Your task to perform on an android device: clear all cookies in the chrome app Image 0: 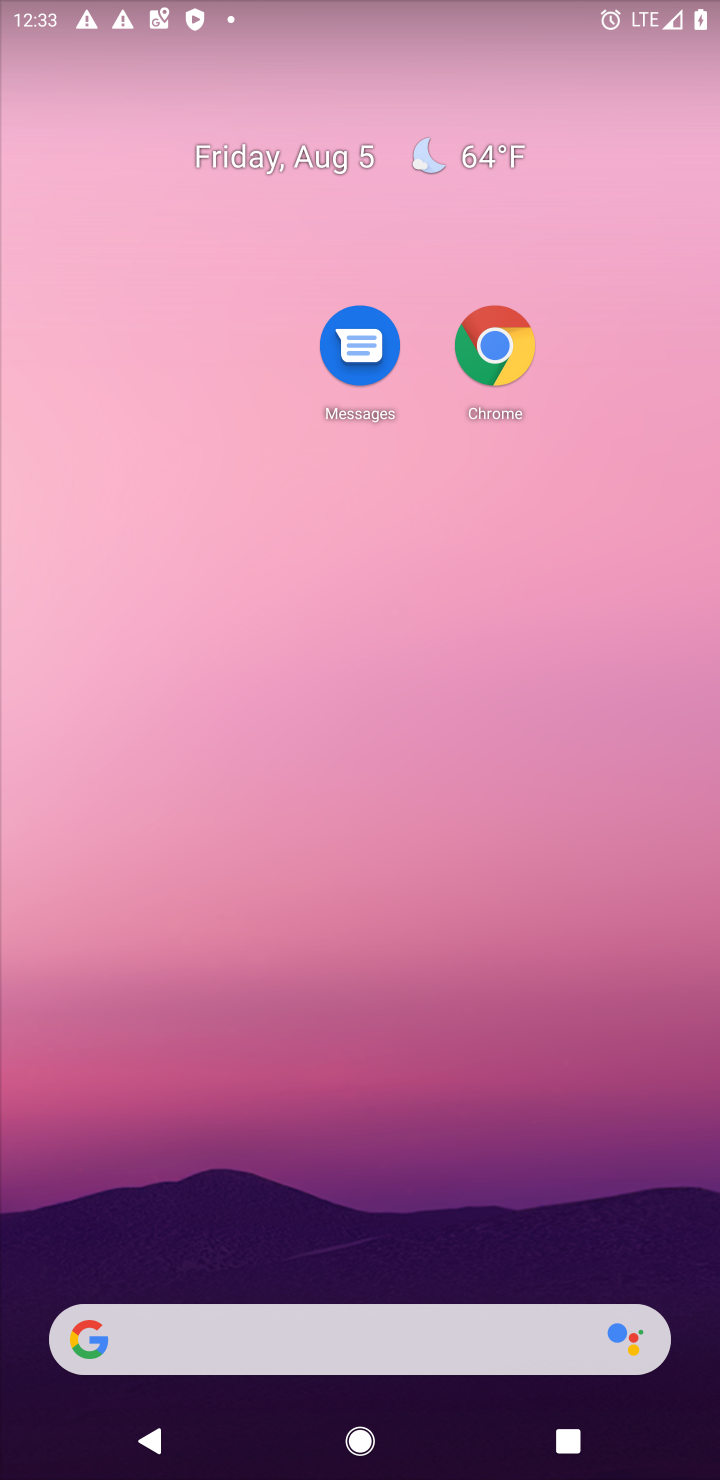
Step 0: drag from (292, 1044) to (507, 13)
Your task to perform on an android device: clear all cookies in the chrome app Image 1: 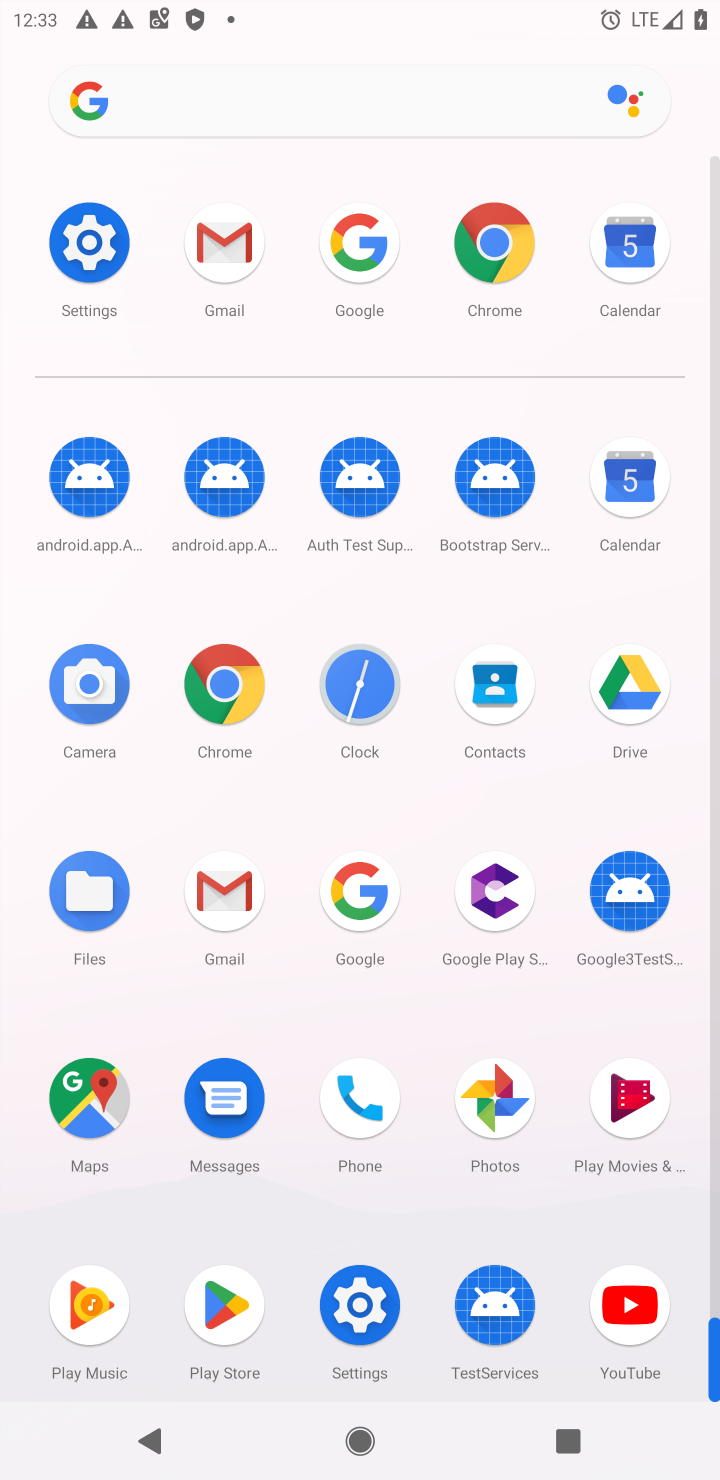
Step 1: click (474, 262)
Your task to perform on an android device: clear all cookies in the chrome app Image 2: 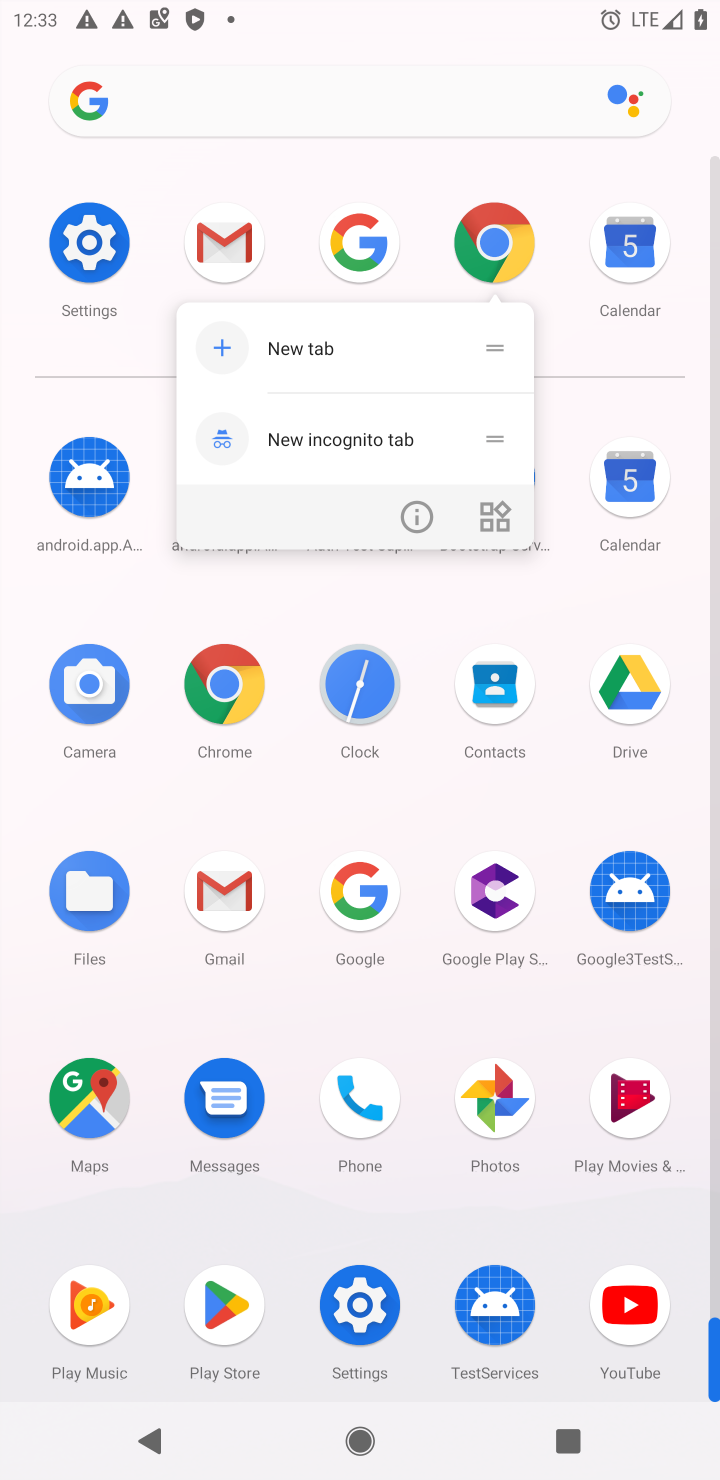
Step 2: click (474, 262)
Your task to perform on an android device: clear all cookies in the chrome app Image 3: 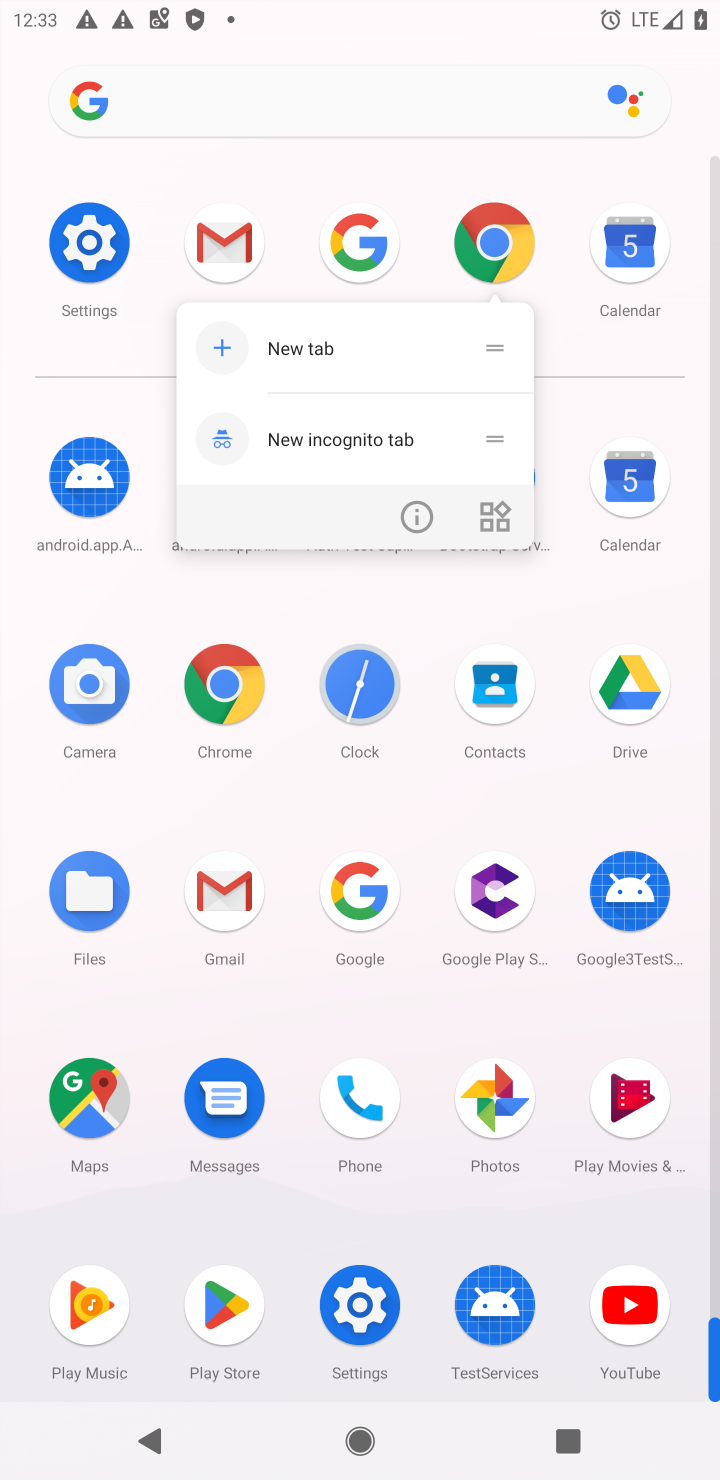
Step 3: click (483, 252)
Your task to perform on an android device: clear all cookies in the chrome app Image 4: 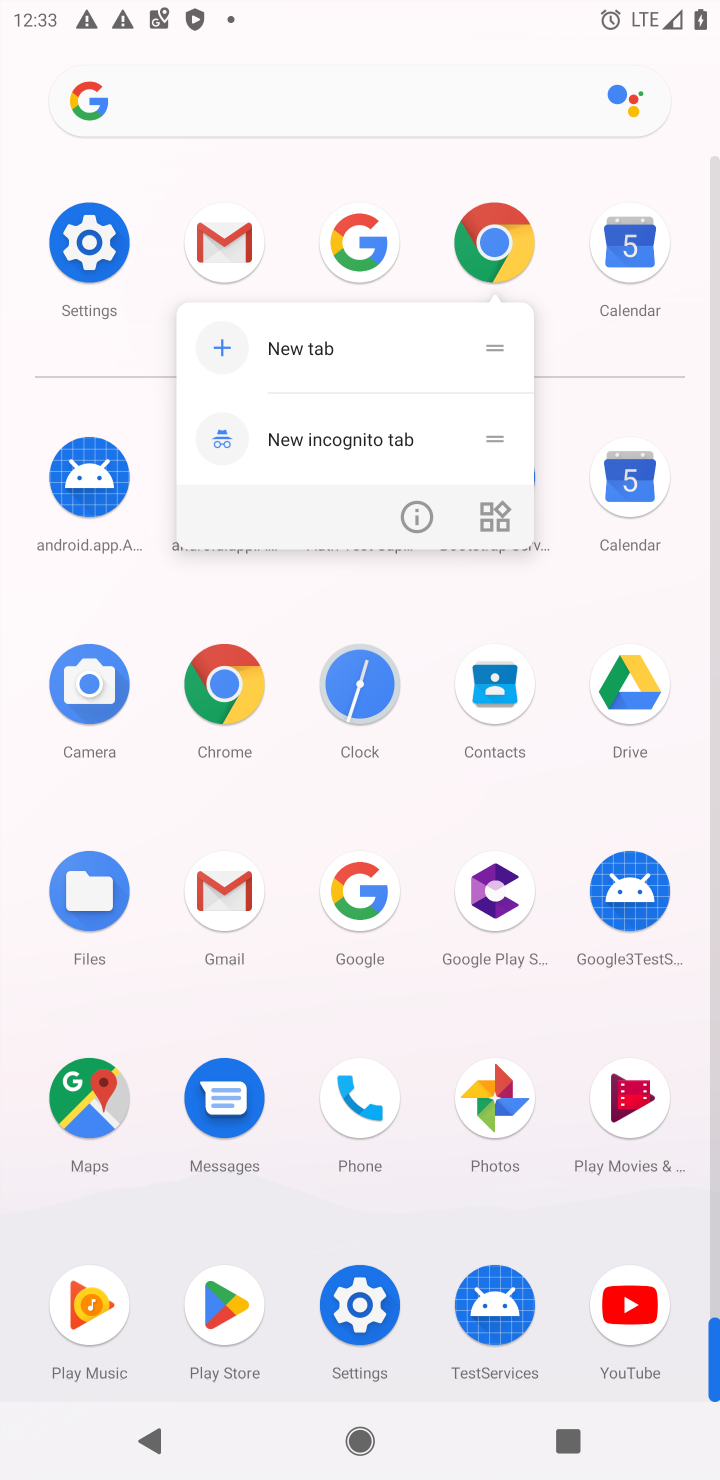
Step 4: click (466, 233)
Your task to perform on an android device: clear all cookies in the chrome app Image 5: 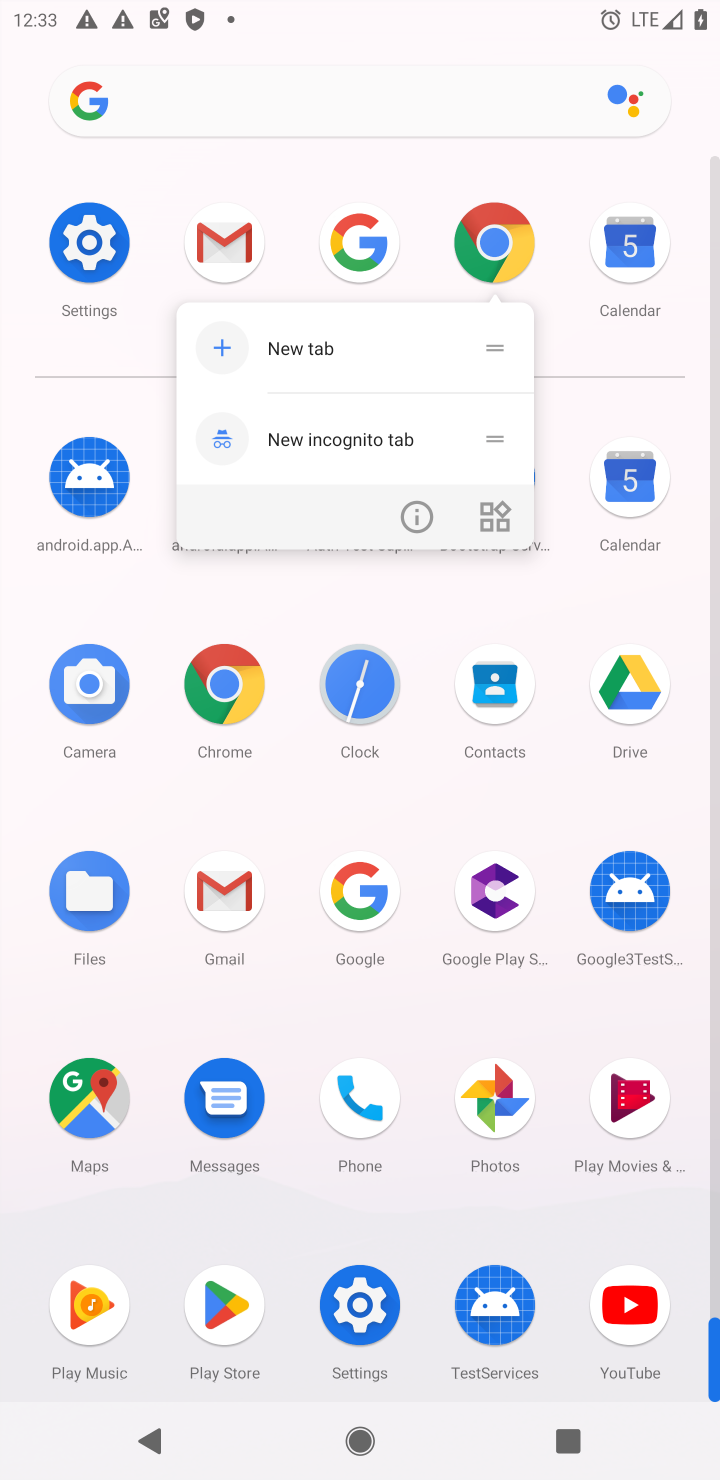
Step 5: click (492, 231)
Your task to perform on an android device: clear all cookies in the chrome app Image 6: 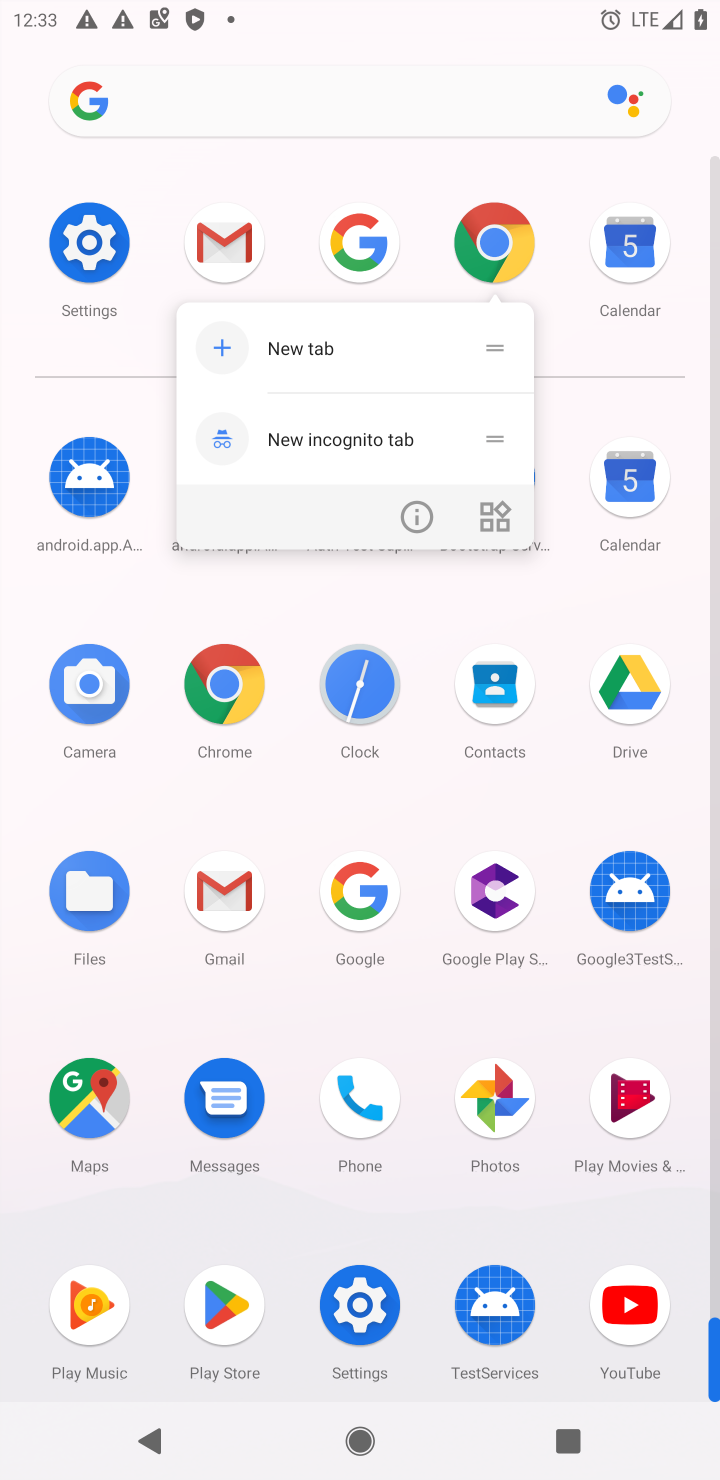
Step 6: click (492, 231)
Your task to perform on an android device: clear all cookies in the chrome app Image 7: 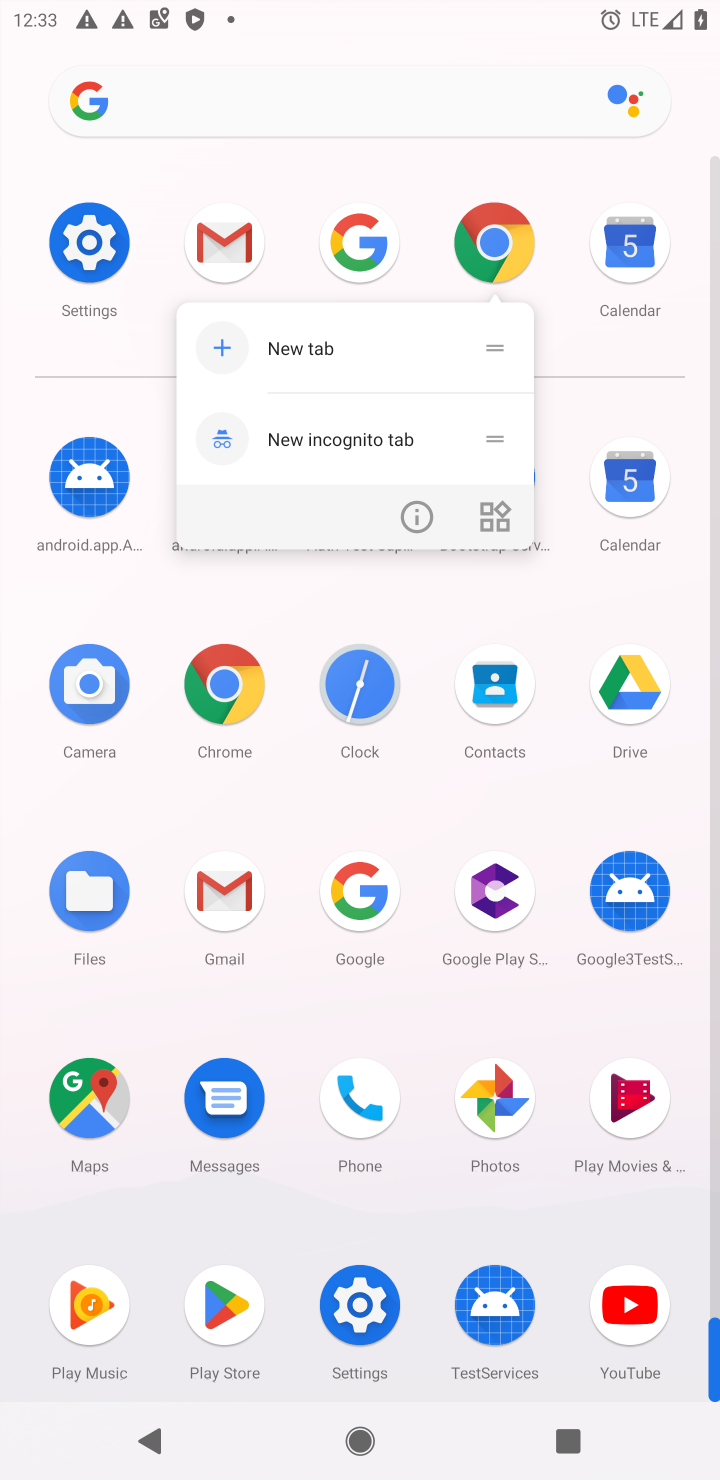
Step 7: click (505, 260)
Your task to perform on an android device: clear all cookies in the chrome app Image 8: 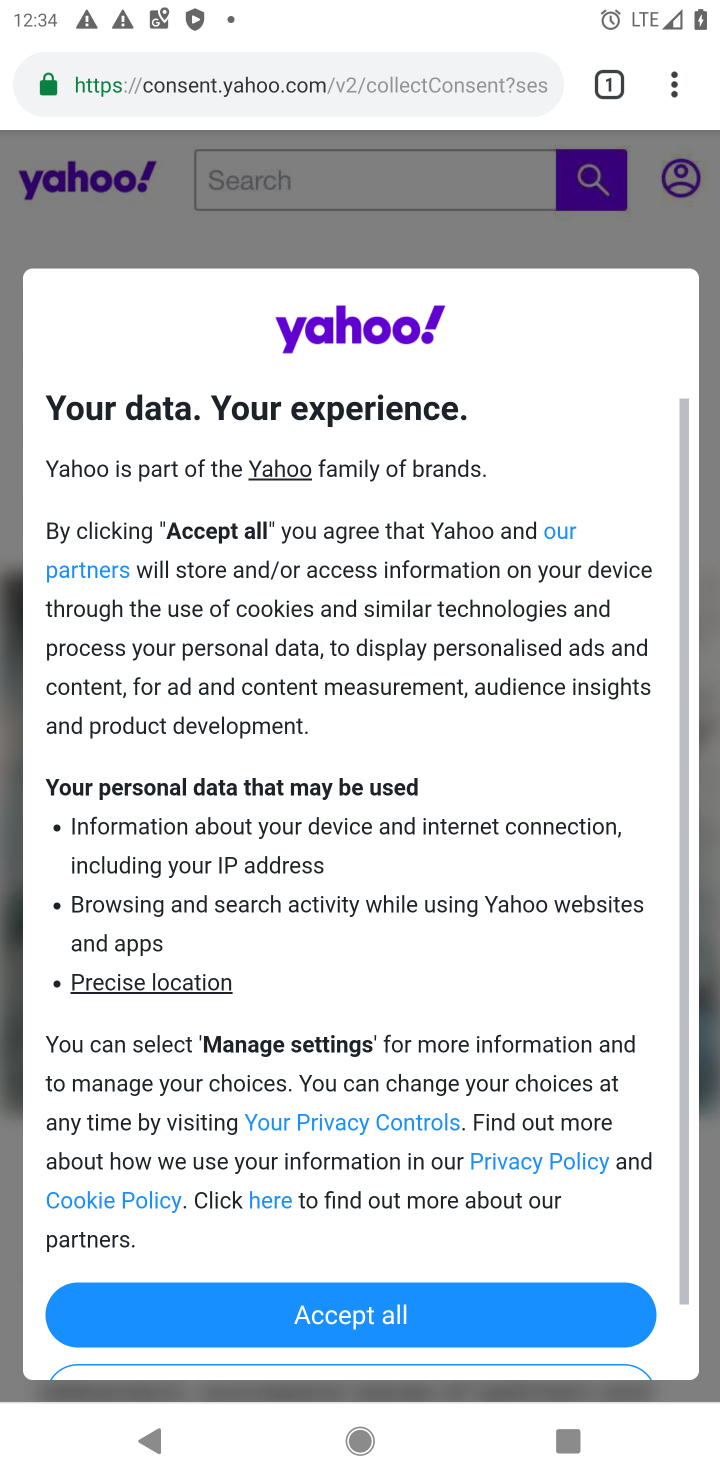
Step 8: drag from (673, 93) to (389, 473)
Your task to perform on an android device: clear all cookies in the chrome app Image 9: 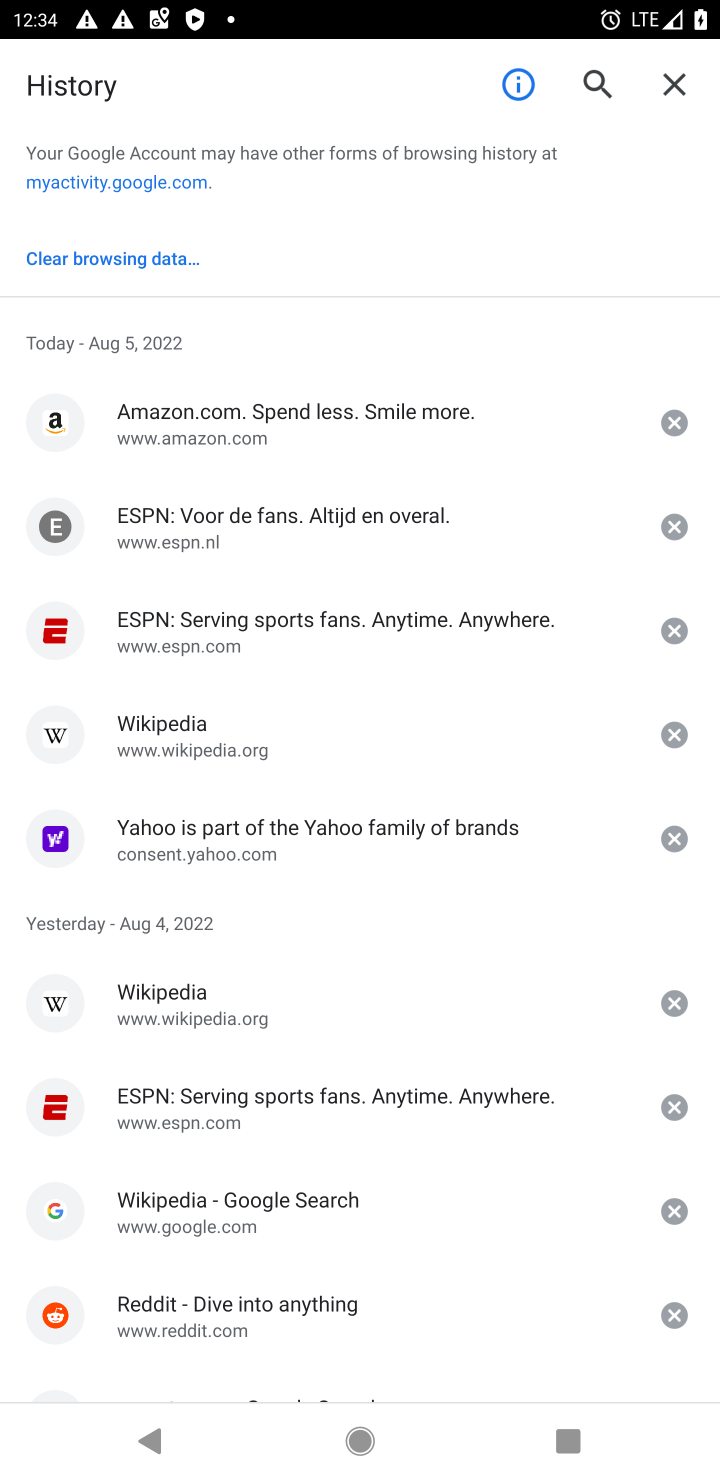
Step 9: click (102, 253)
Your task to perform on an android device: clear all cookies in the chrome app Image 10: 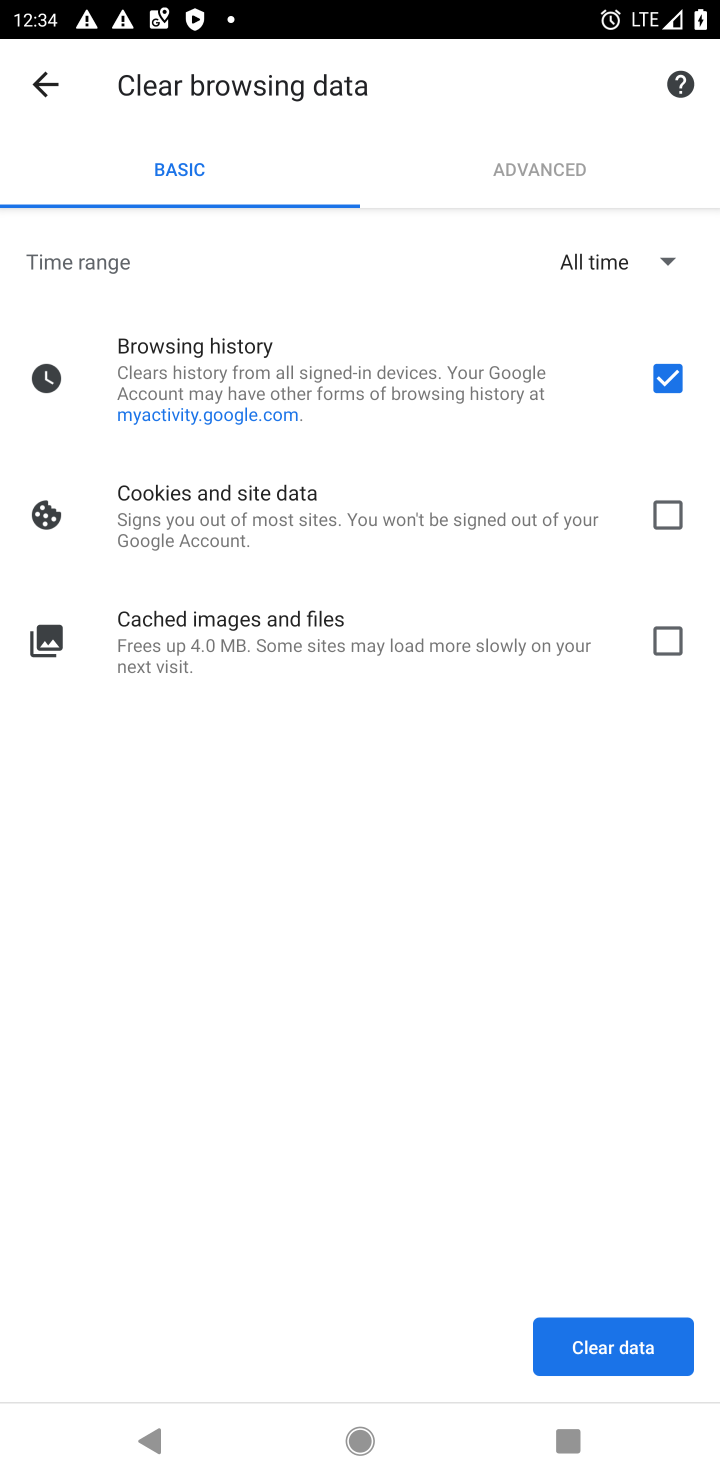
Step 10: click (657, 537)
Your task to perform on an android device: clear all cookies in the chrome app Image 11: 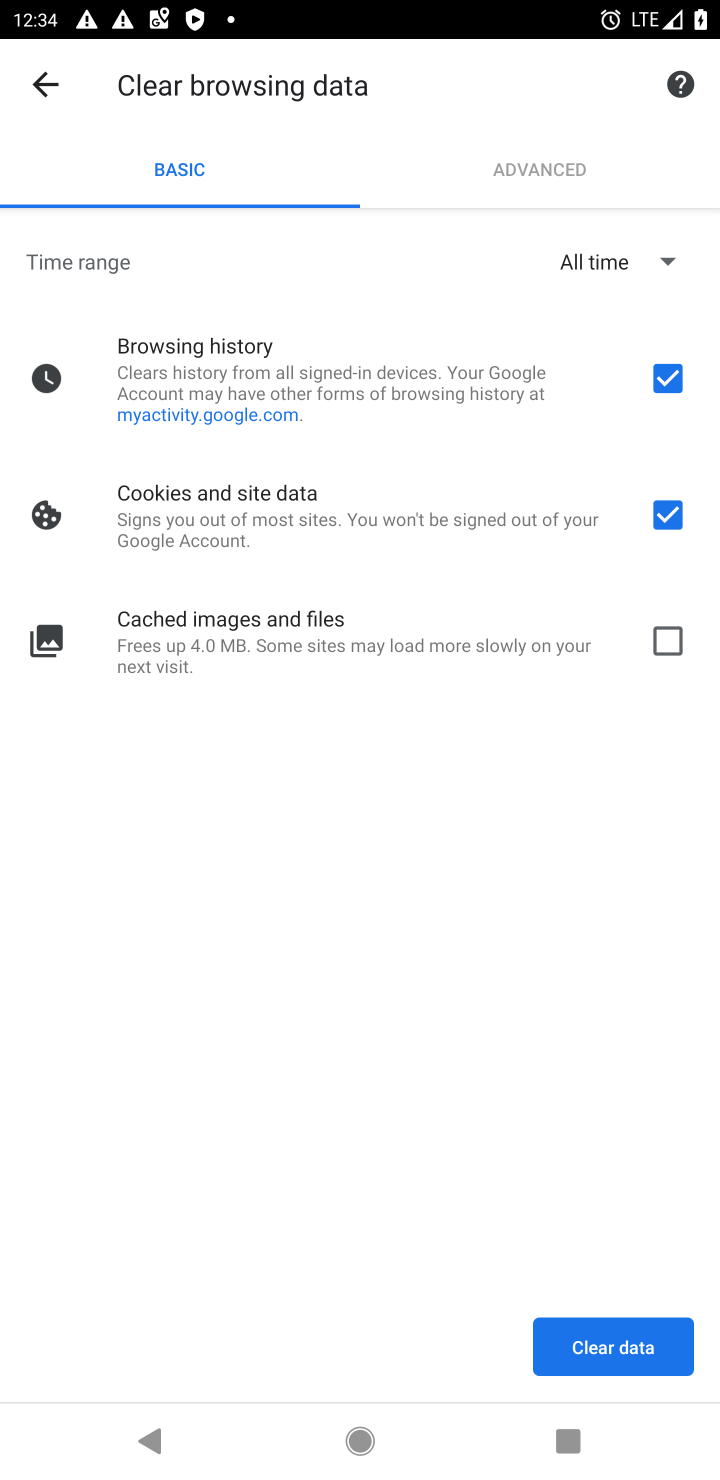
Step 11: click (660, 366)
Your task to perform on an android device: clear all cookies in the chrome app Image 12: 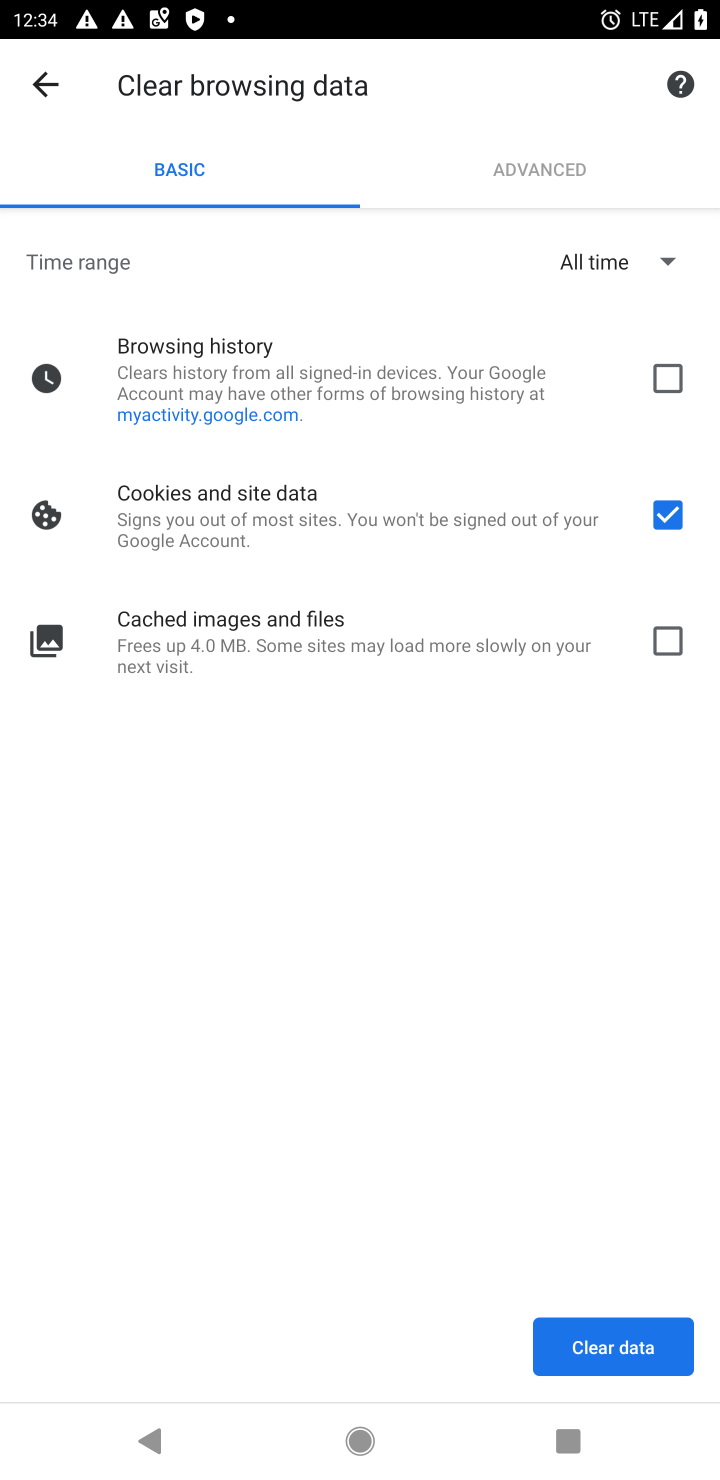
Step 12: click (564, 1358)
Your task to perform on an android device: clear all cookies in the chrome app Image 13: 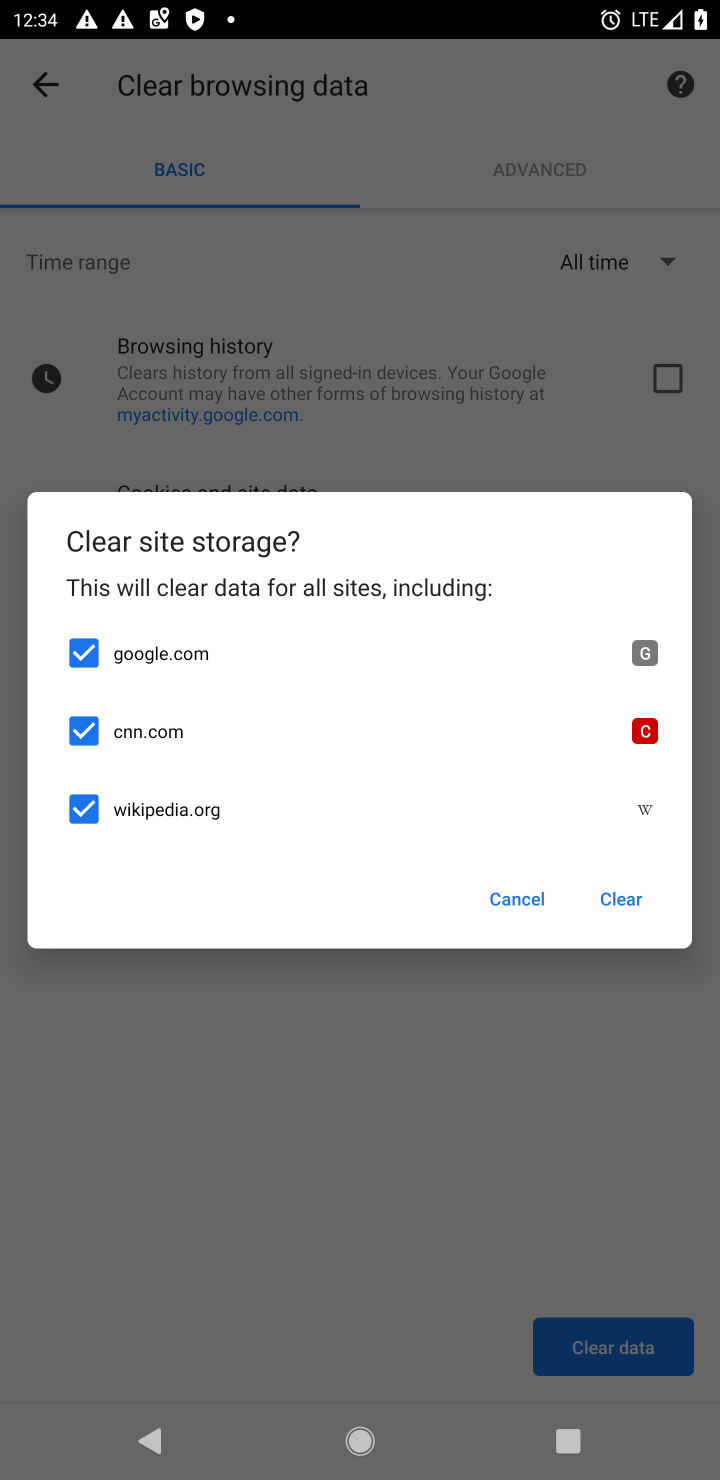
Step 13: click (625, 902)
Your task to perform on an android device: clear all cookies in the chrome app Image 14: 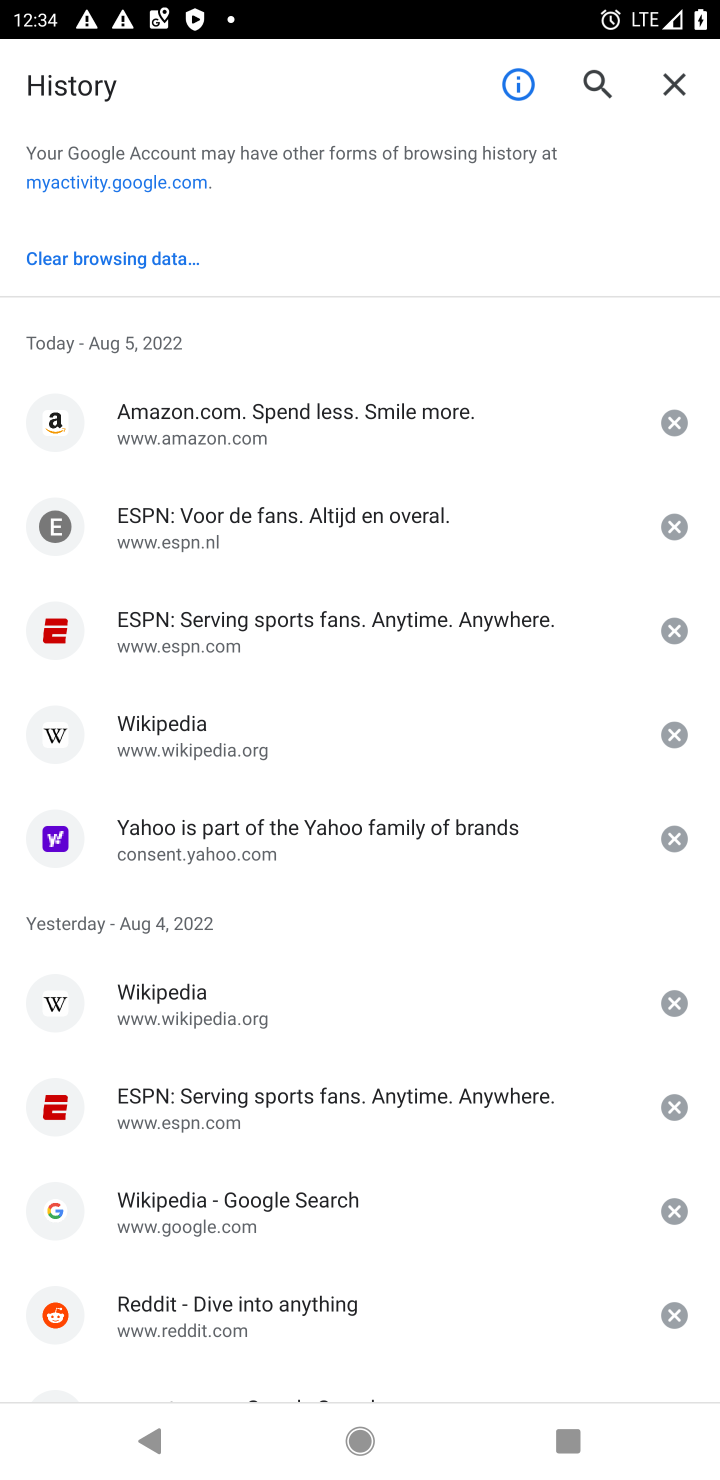
Step 14: task complete